Your task to perform on an android device: Open calendar and show me the first week of next month Image 0: 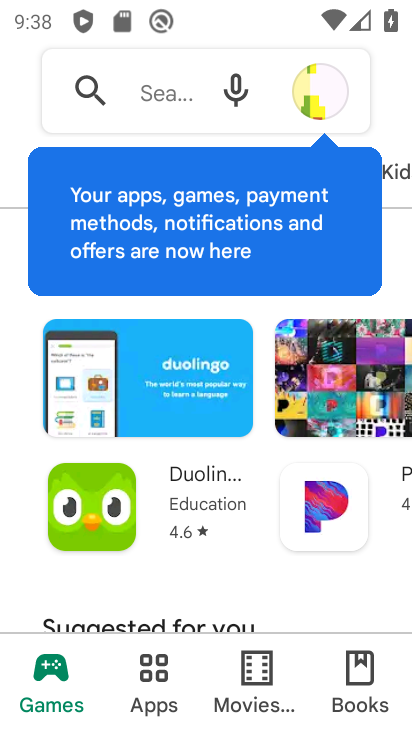
Step 0: press home button
Your task to perform on an android device: Open calendar and show me the first week of next month Image 1: 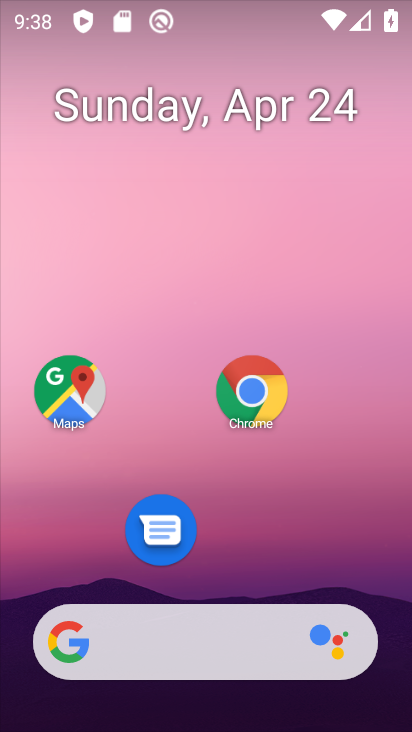
Step 1: click (124, 113)
Your task to perform on an android device: Open calendar and show me the first week of next month Image 2: 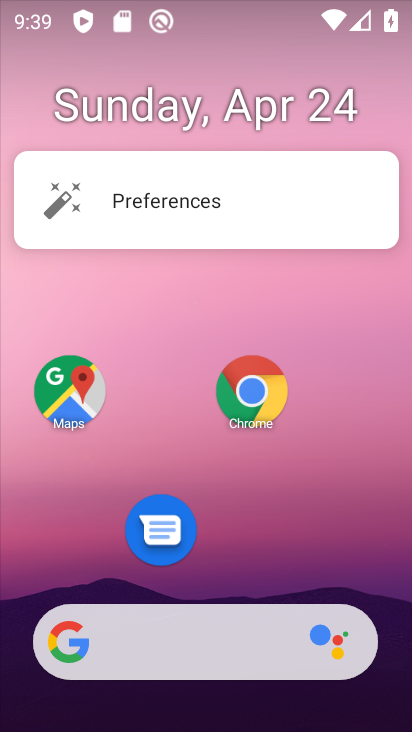
Step 2: drag from (230, 568) to (234, 52)
Your task to perform on an android device: Open calendar and show me the first week of next month Image 3: 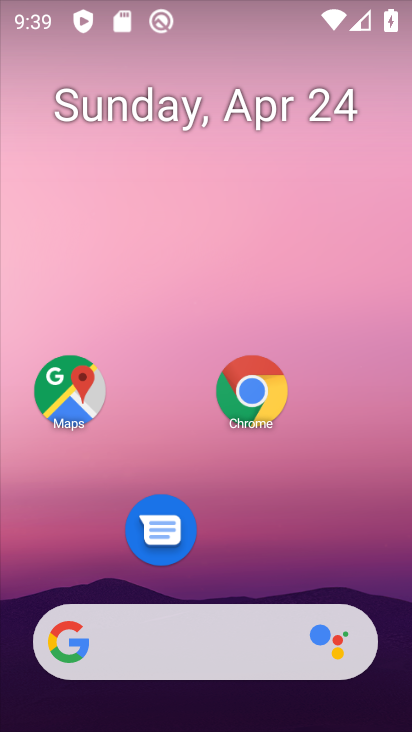
Step 3: drag from (250, 568) to (287, 124)
Your task to perform on an android device: Open calendar and show me the first week of next month Image 4: 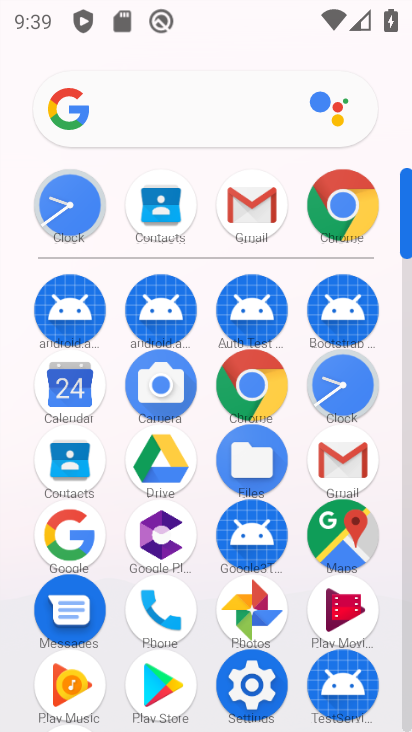
Step 4: click (74, 385)
Your task to perform on an android device: Open calendar and show me the first week of next month Image 5: 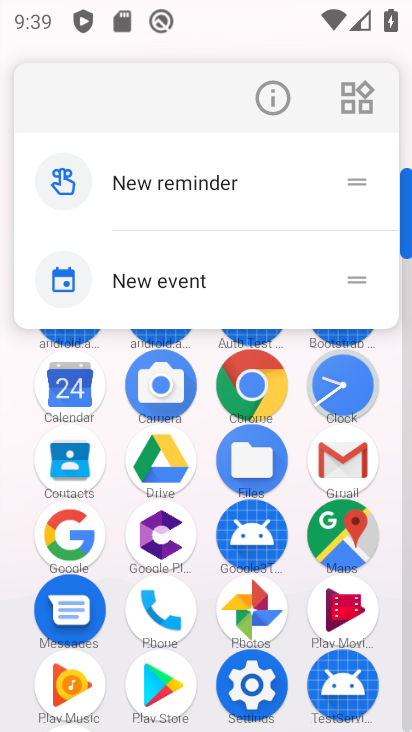
Step 5: click (61, 385)
Your task to perform on an android device: Open calendar and show me the first week of next month Image 6: 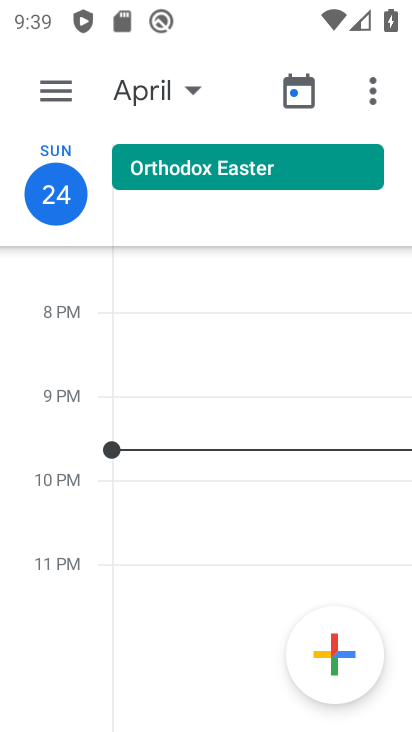
Step 6: click (170, 91)
Your task to perform on an android device: Open calendar and show me the first week of next month Image 7: 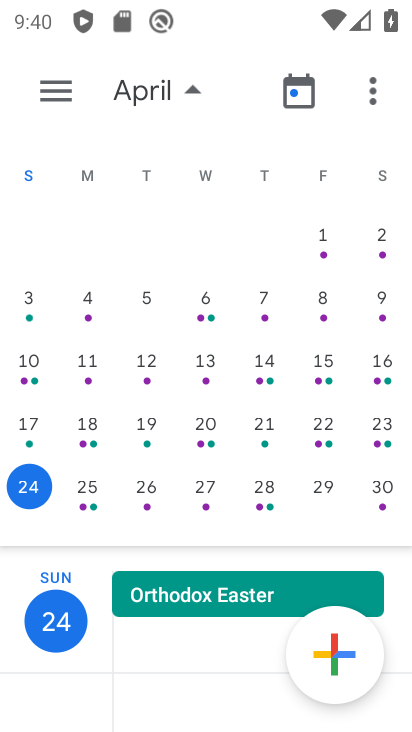
Step 7: click (155, 67)
Your task to perform on an android device: Open calendar and show me the first week of next month Image 8: 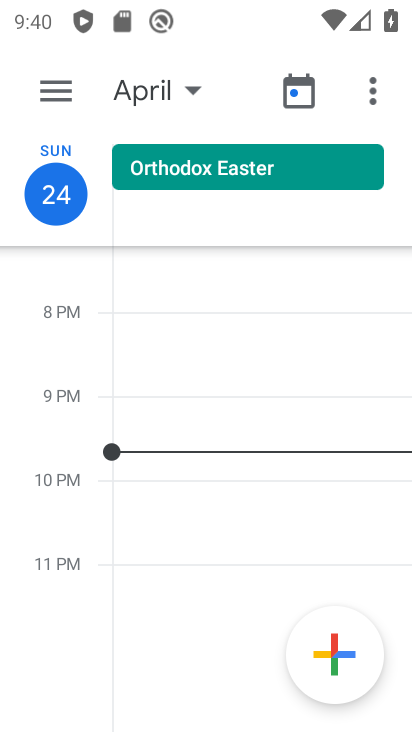
Step 8: click (147, 92)
Your task to perform on an android device: Open calendar and show me the first week of next month Image 9: 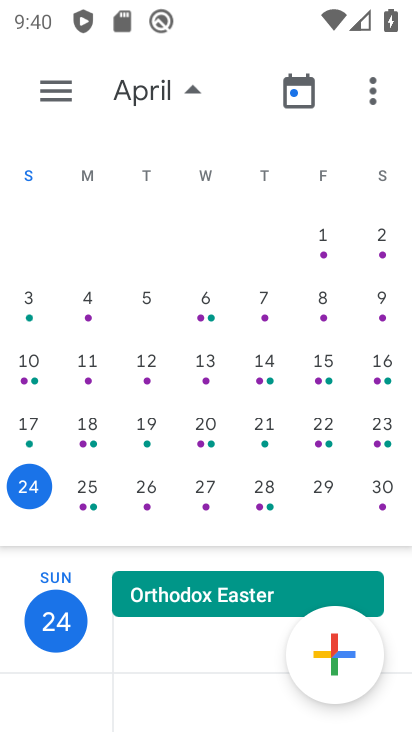
Step 9: drag from (390, 505) to (6, 470)
Your task to perform on an android device: Open calendar and show me the first week of next month Image 10: 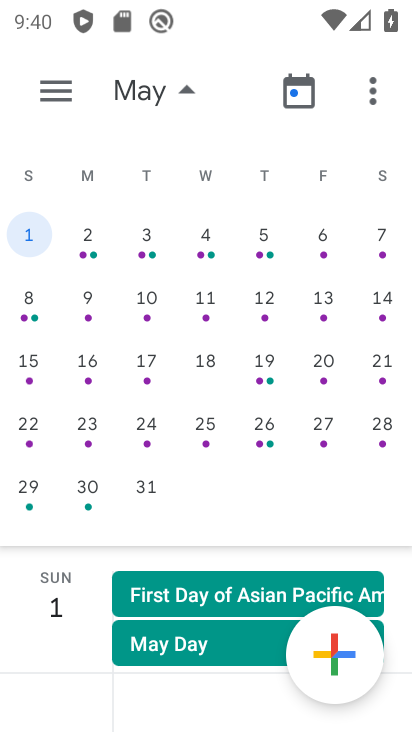
Step 10: drag from (346, 478) to (119, 463)
Your task to perform on an android device: Open calendar and show me the first week of next month Image 11: 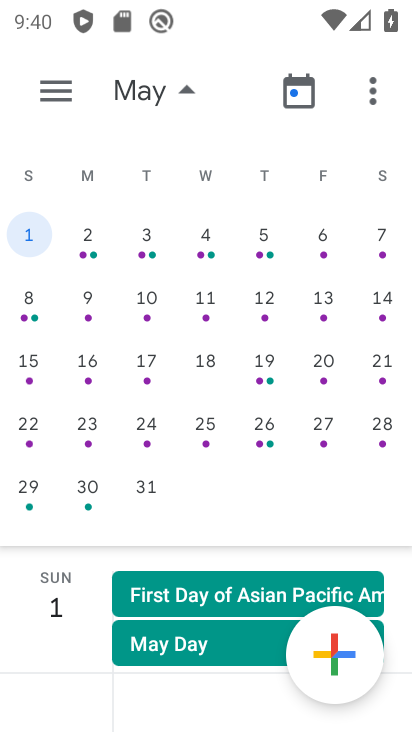
Step 11: click (103, 242)
Your task to perform on an android device: Open calendar and show me the first week of next month Image 12: 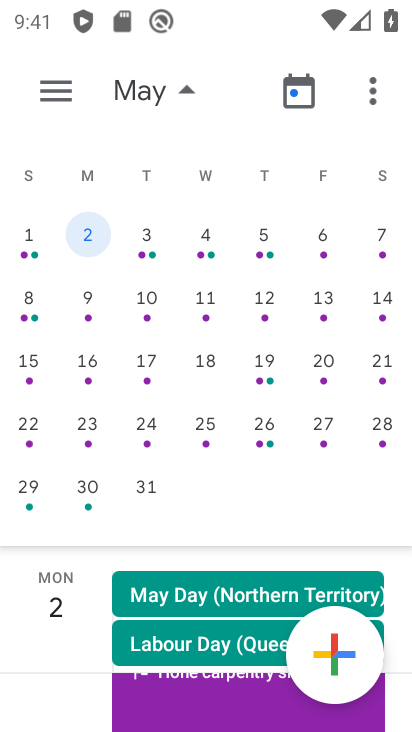
Step 12: task complete